Your task to perform on an android device: install app "Google Keep" Image 0: 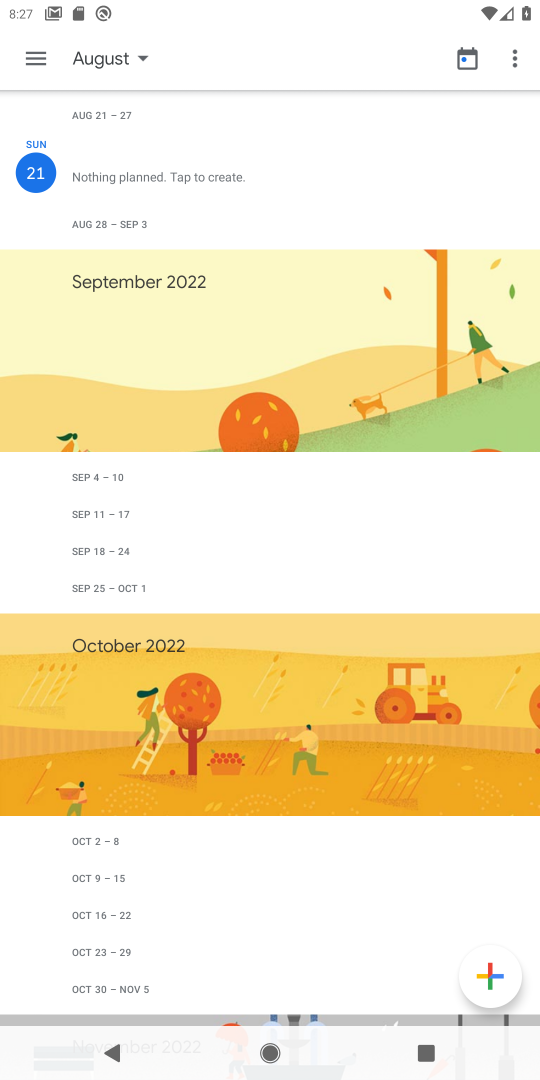
Step 0: press home button
Your task to perform on an android device: install app "Google Keep" Image 1: 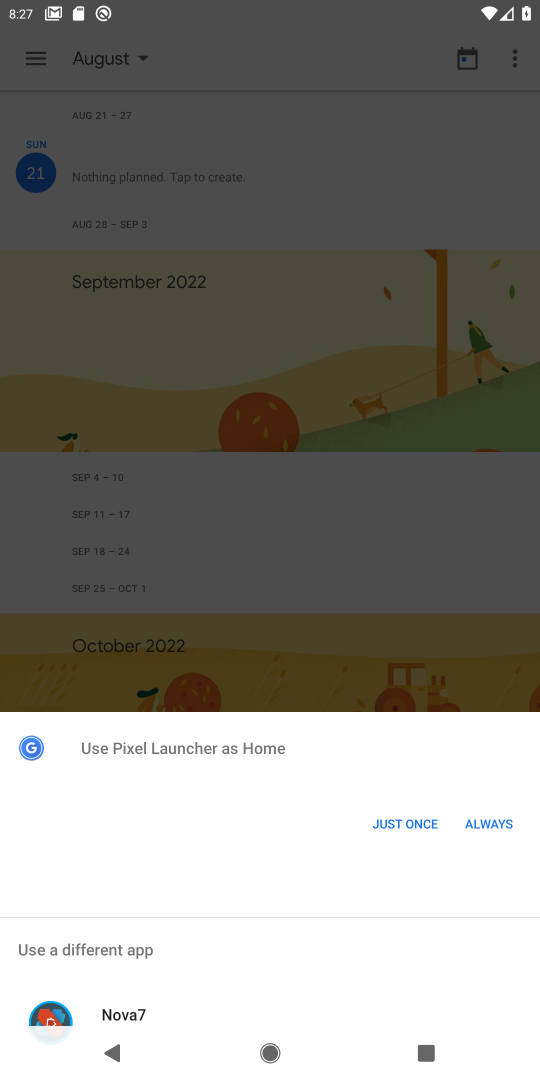
Step 1: press home button
Your task to perform on an android device: install app "Google Keep" Image 2: 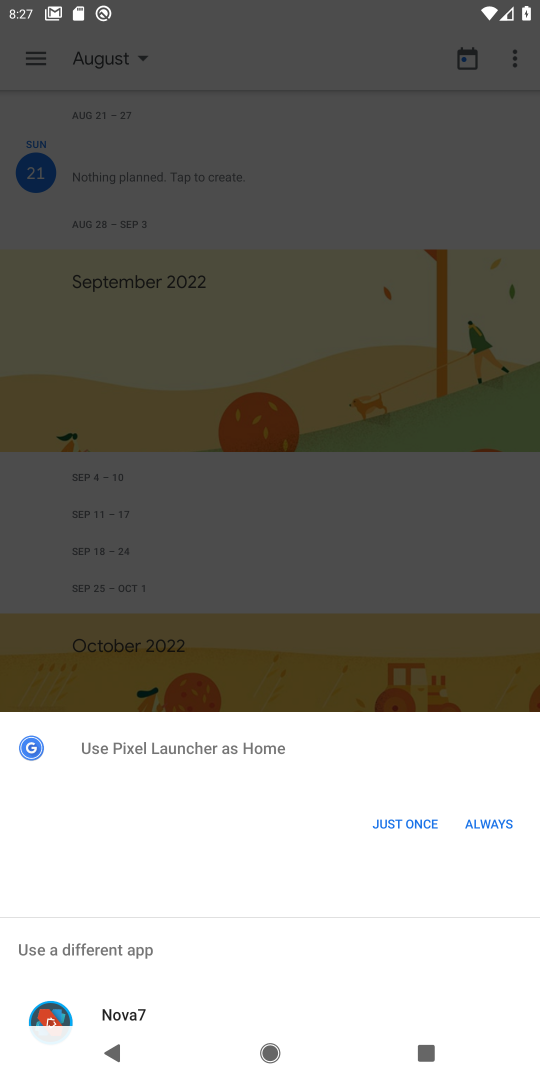
Step 2: click (418, 814)
Your task to perform on an android device: install app "Google Keep" Image 3: 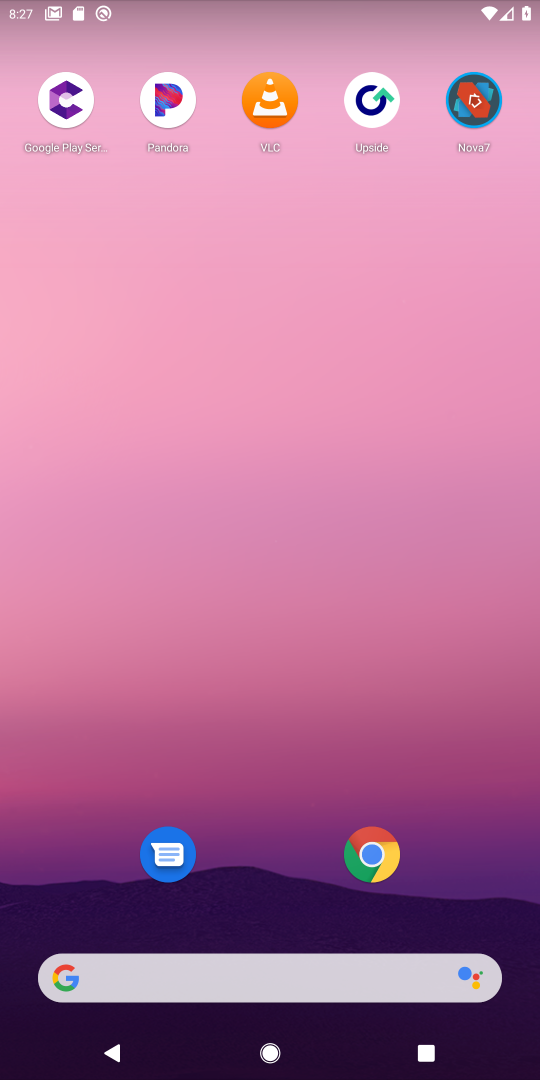
Step 3: click (413, 831)
Your task to perform on an android device: install app "Google Keep" Image 4: 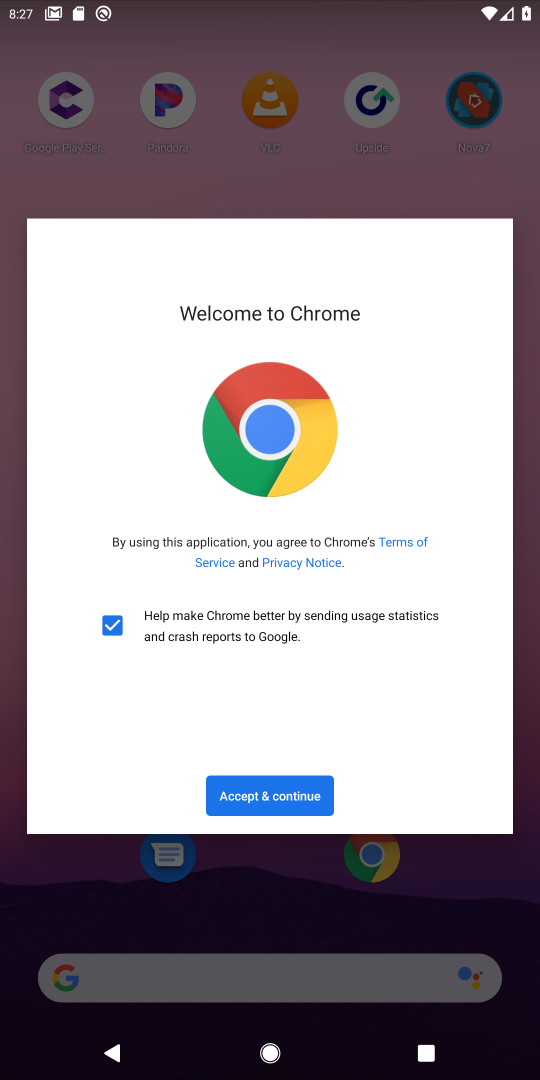
Step 4: drag from (378, 362) to (510, 7)
Your task to perform on an android device: install app "Google Keep" Image 5: 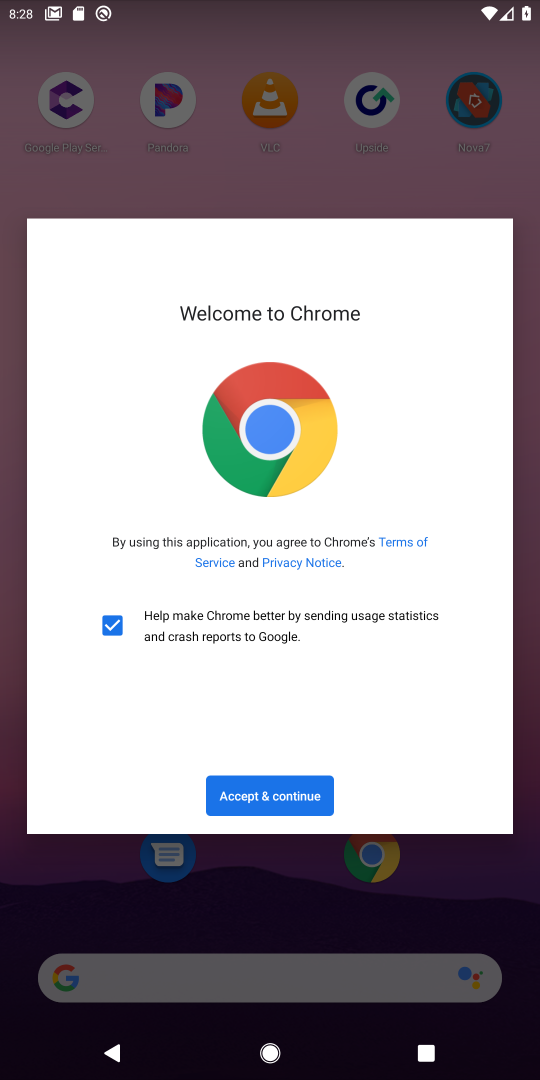
Step 5: press home button
Your task to perform on an android device: install app "Google Keep" Image 6: 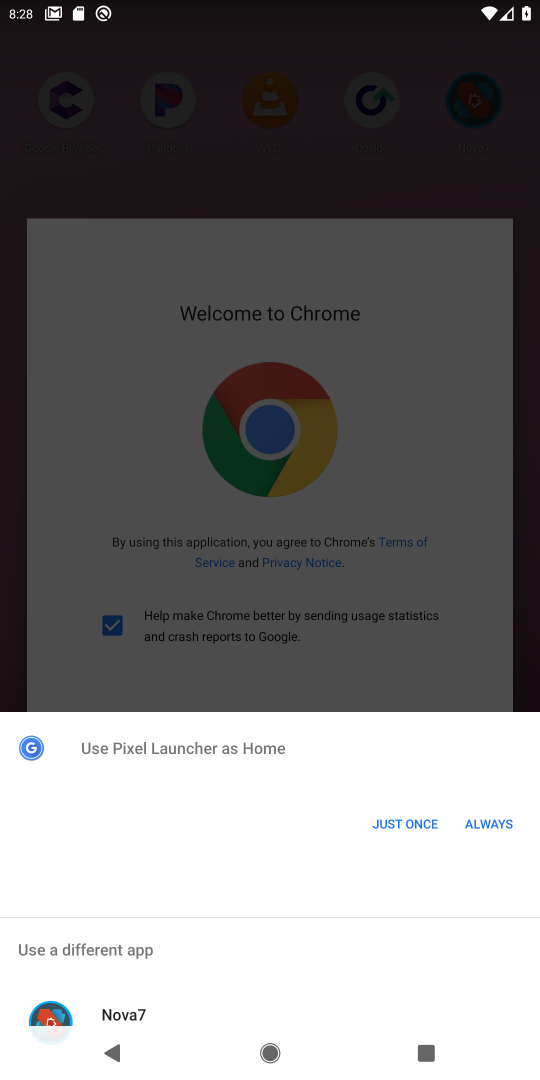
Step 6: click (83, 979)
Your task to perform on an android device: install app "Google Keep" Image 7: 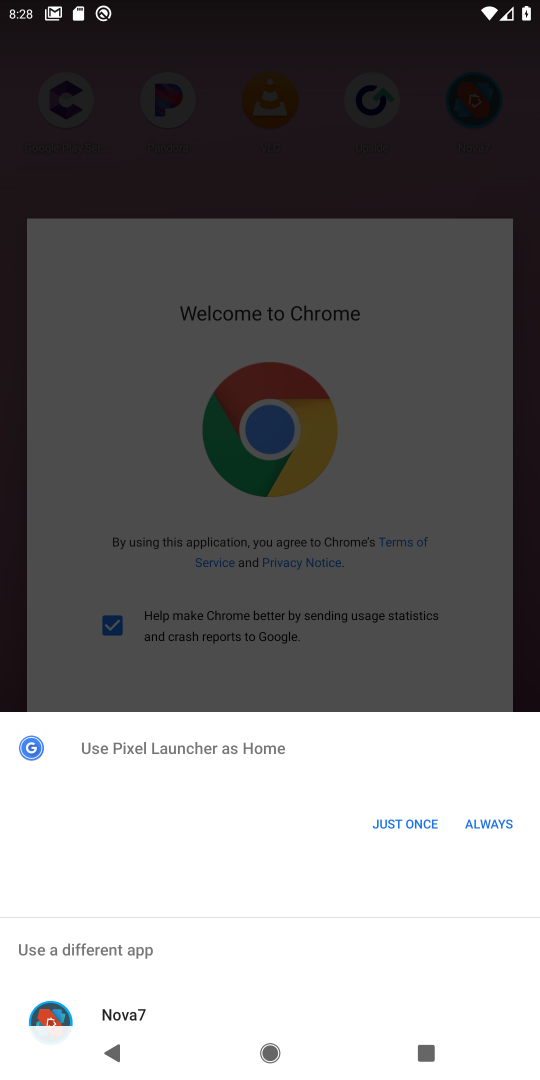
Step 7: click (477, 813)
Your task to perform on an android device: install app "Google Keep" Image 8: 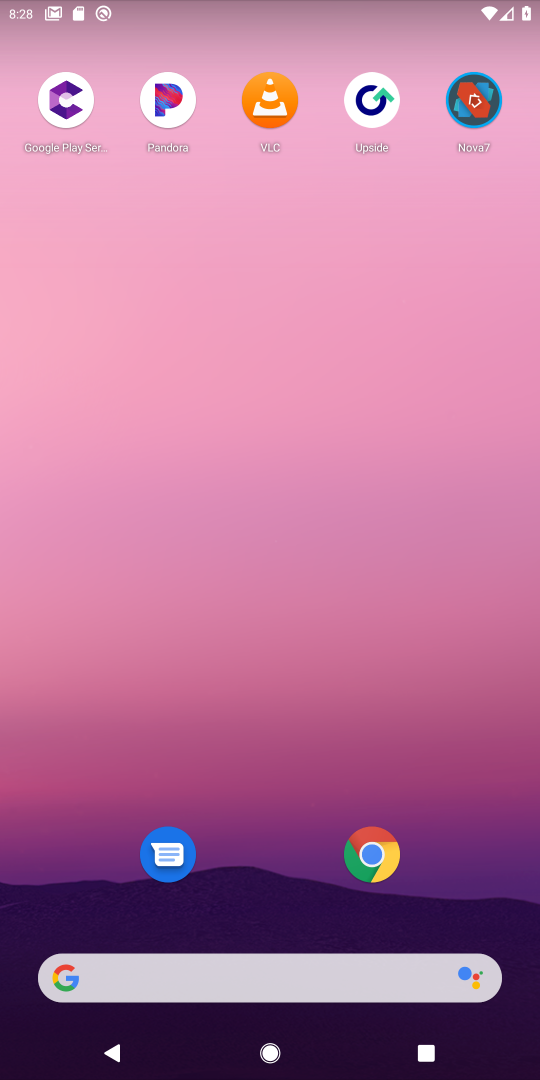
Step 8: click (464, 823)
Your task to perform on an android device: install app "Google Keep" Image 9: 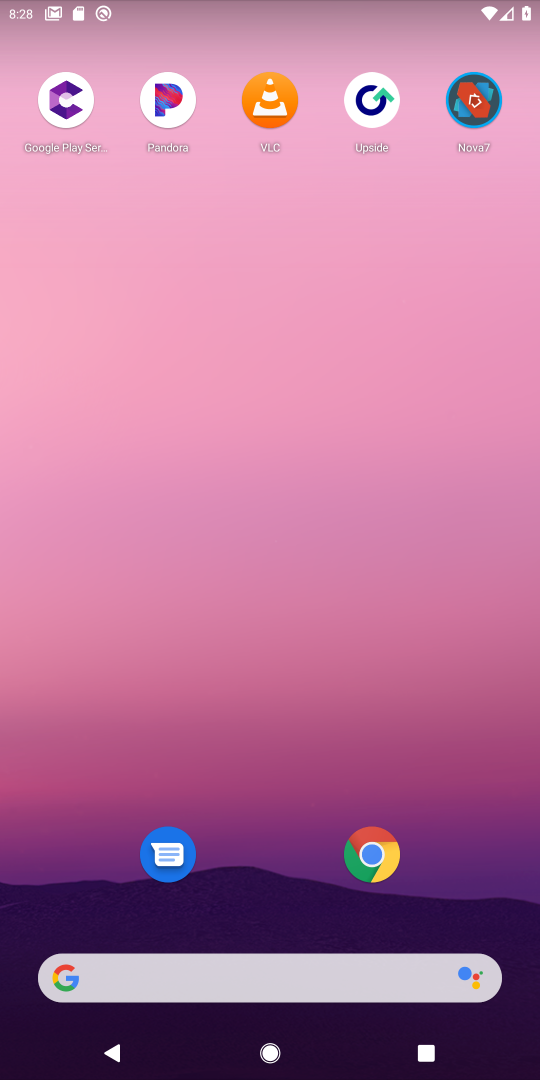
Step 9: drag from (306, 940) to (308, 107)
Your task to perform on an android device: install app "Google Keep" Image 10: 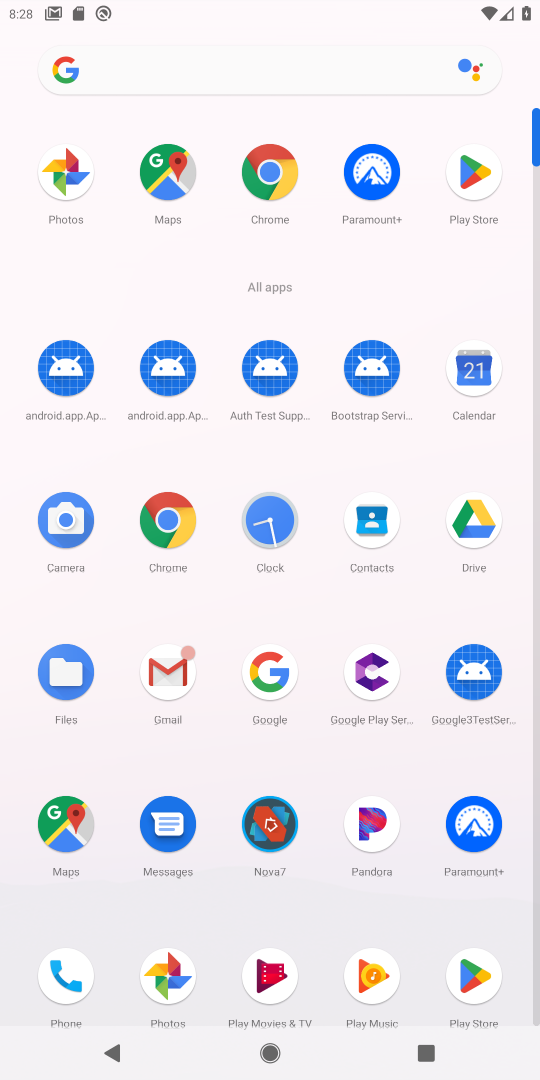
Step 10: click (473, 200)
Your task to perform on an android device: install app "Google Keep" Image 11: 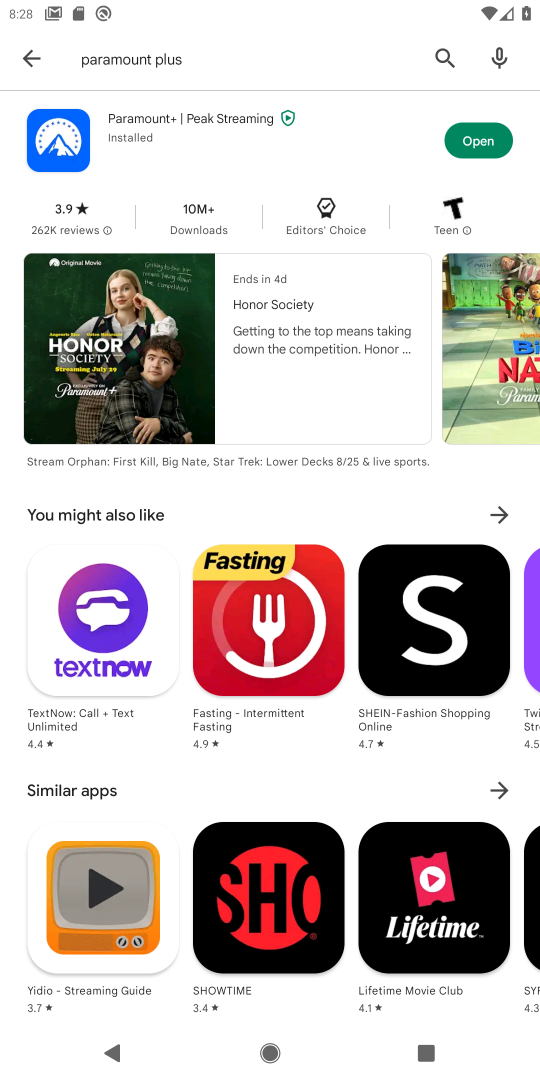
Step 11: click (428, 68)
Your task to perform on an android device: install app "Google Keep" Image 12: 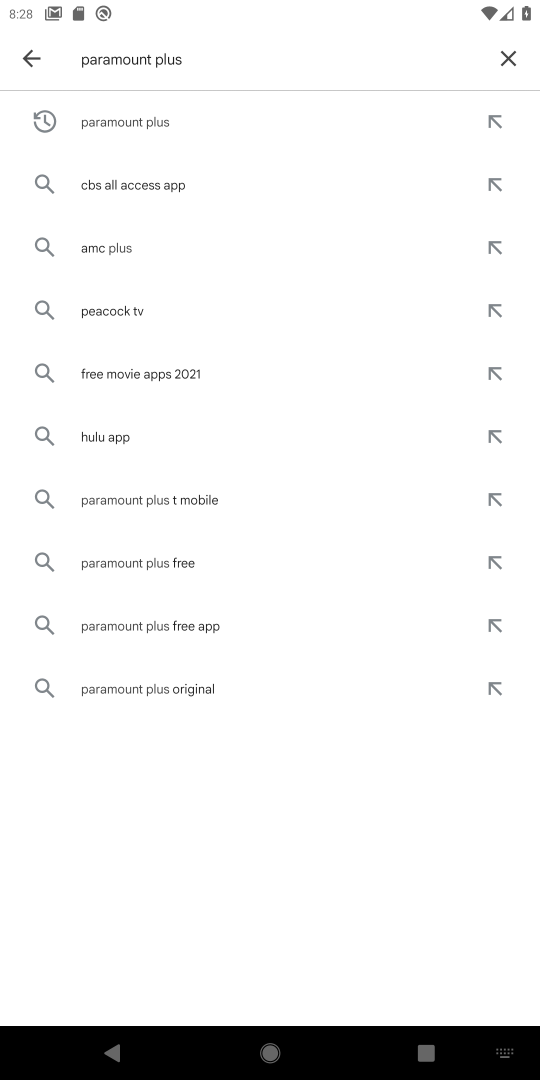
Step 12: click (516, 67)
Your task to perform on an android device: install app "Google Keep" Image 13: 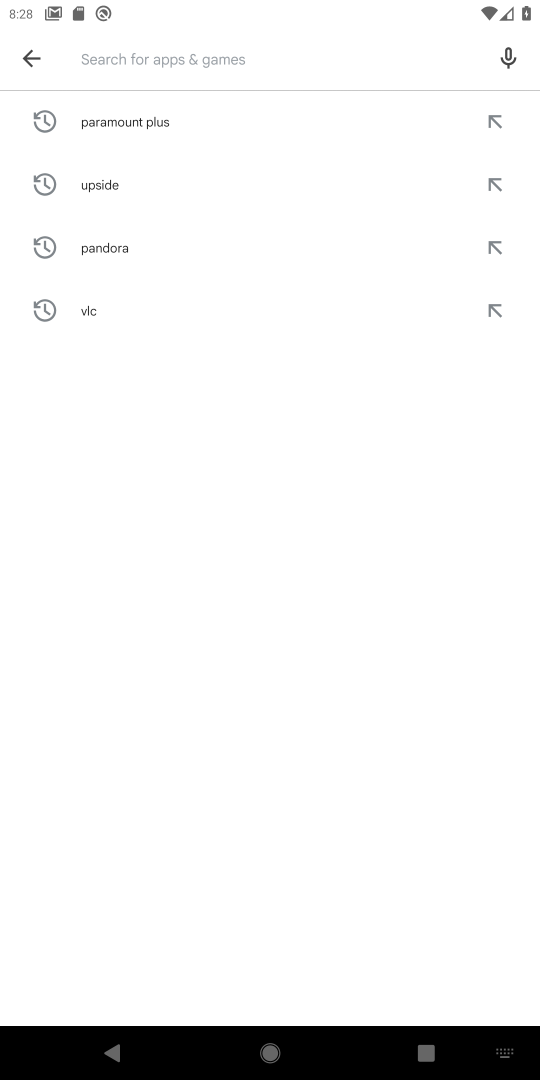
Step 13: type "google keeps"
Your task to perform on an android device: install app "Google Keep" Image 14: 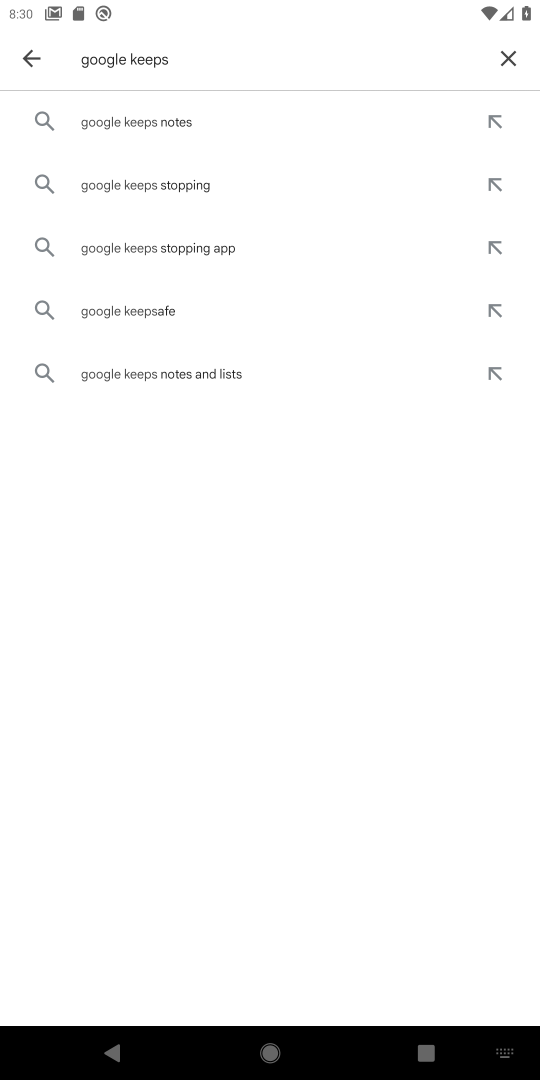
Step 14: click (228, 108)
Your task to perform on an android device: install app "Google Keep" Image 15: 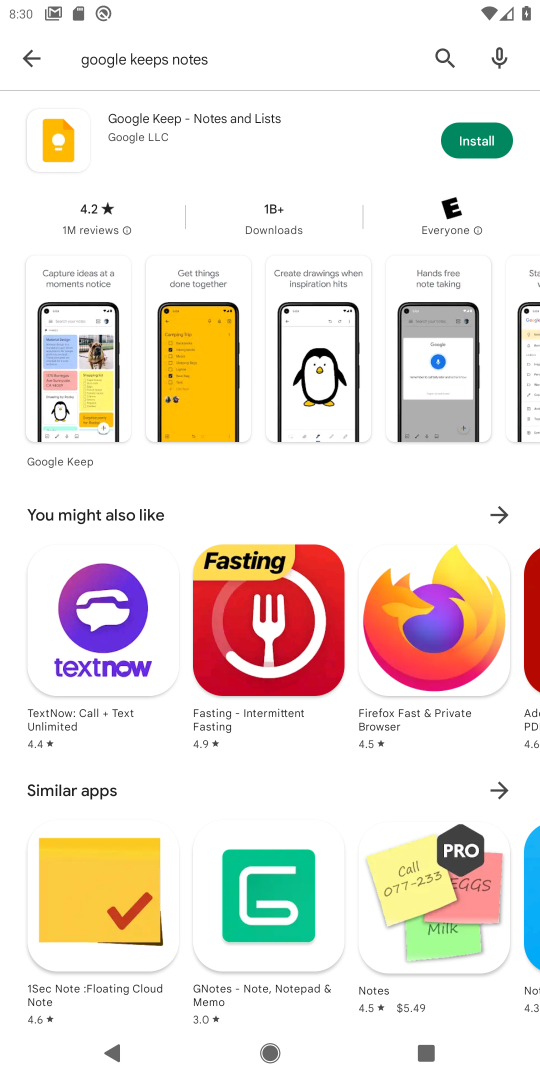
Step 15: click (455, 141)
Your task to perform on an android device: install app "Google Keep" Image 16: 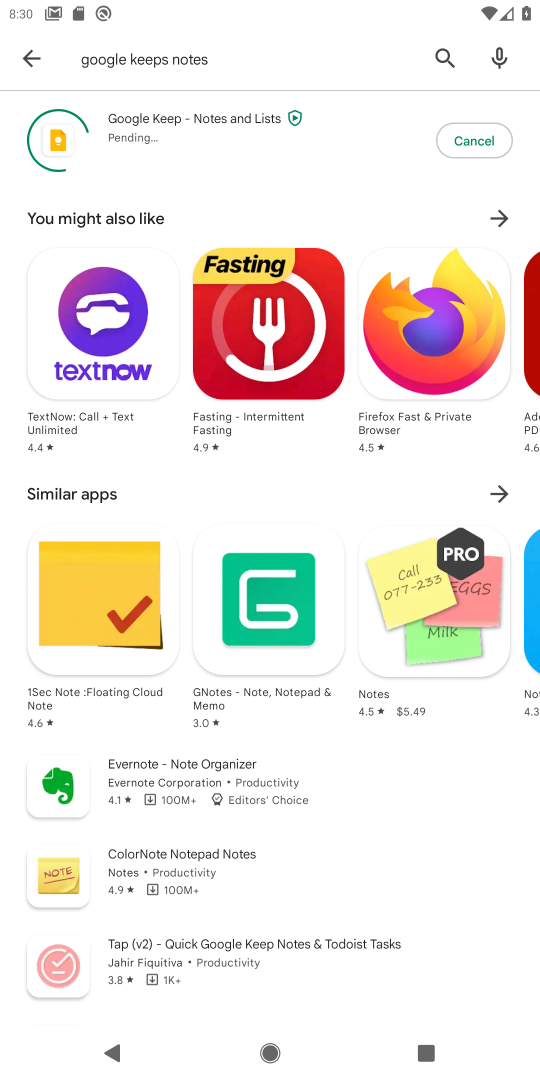
Step 16: task complete